Your task to perform on an android device: Open calendar and show me the fourth week of next month Image 0: 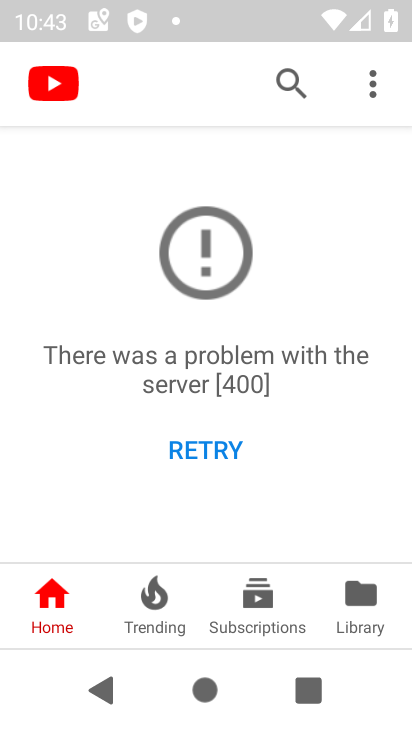
Step 0: press home button
Your task to perform on an android device: Open calendar and show me the fourth week of next month Image 1: 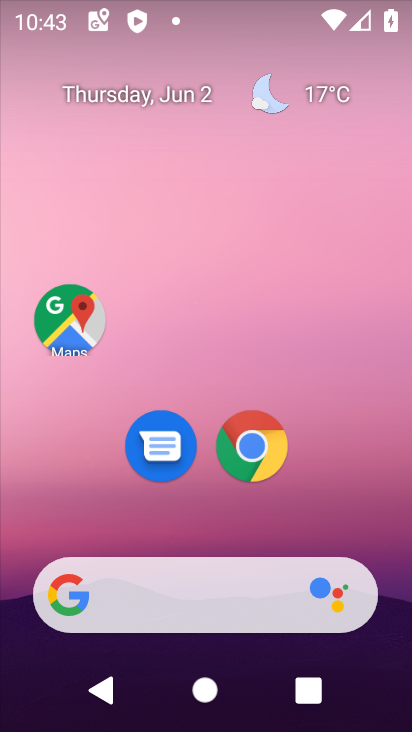
Step 1: drag from (390, 517) to (367, 189)
Your task to perform on an android device: Open calendar and show me the fourth week of next month Image 2: 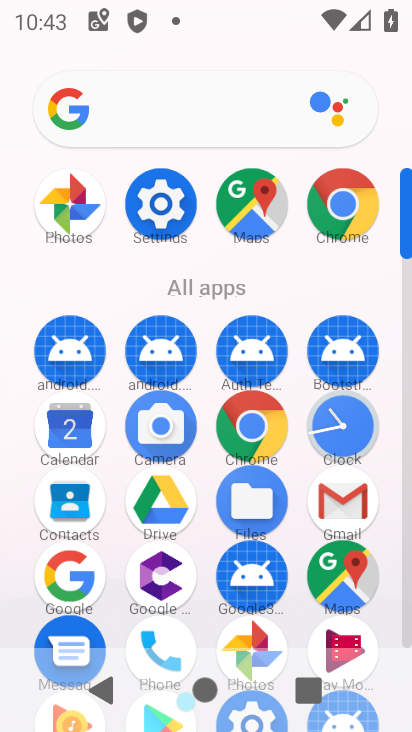
Step 2: click (75, 447)
Your task to perform on an android device: Open calendar and show me the fourth week of next month Image 3: 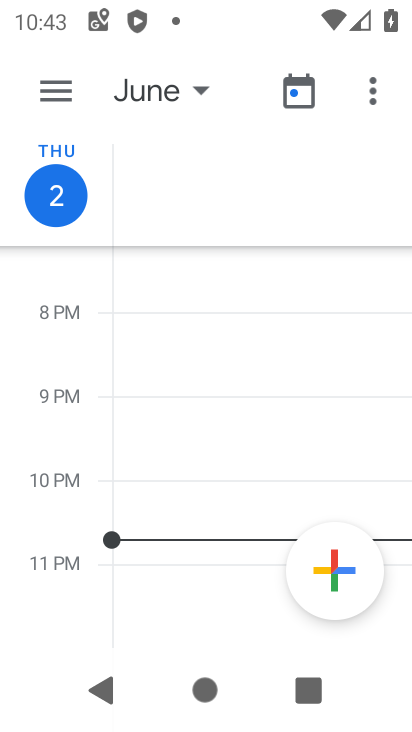
Step 3: click (199, 93)
Your task to perform on an android device: Open calendar and show me the fourth week of next month Image 4: 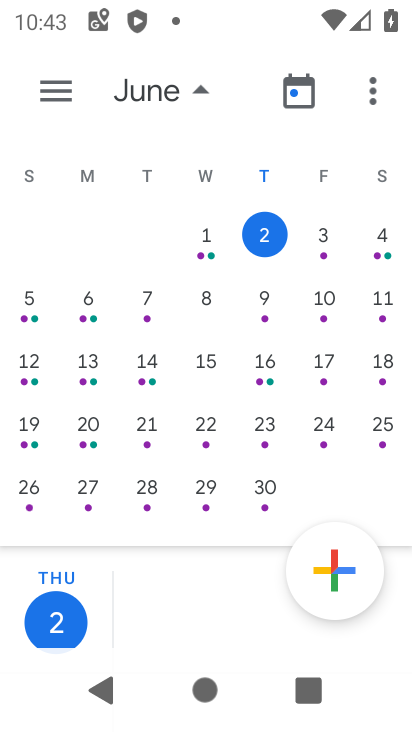
Step 4: click (93, 438)
Your task to perform on an android device: Open calendar and show me the fourth week of next month Image 5: 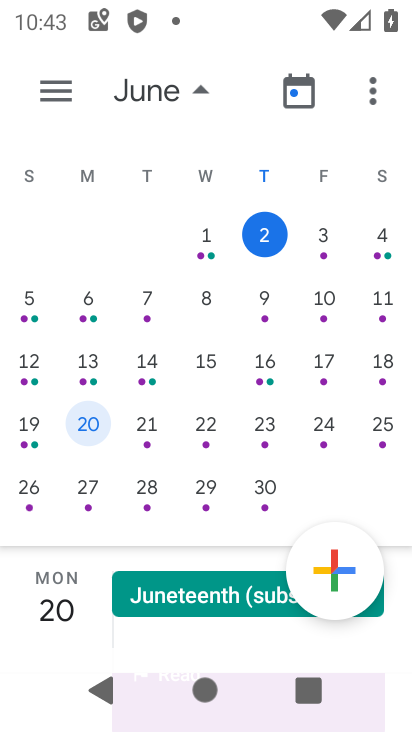
Step 5: task complete